Your task to perform on an android device: stop showing notifications on the lock screen Image 0: 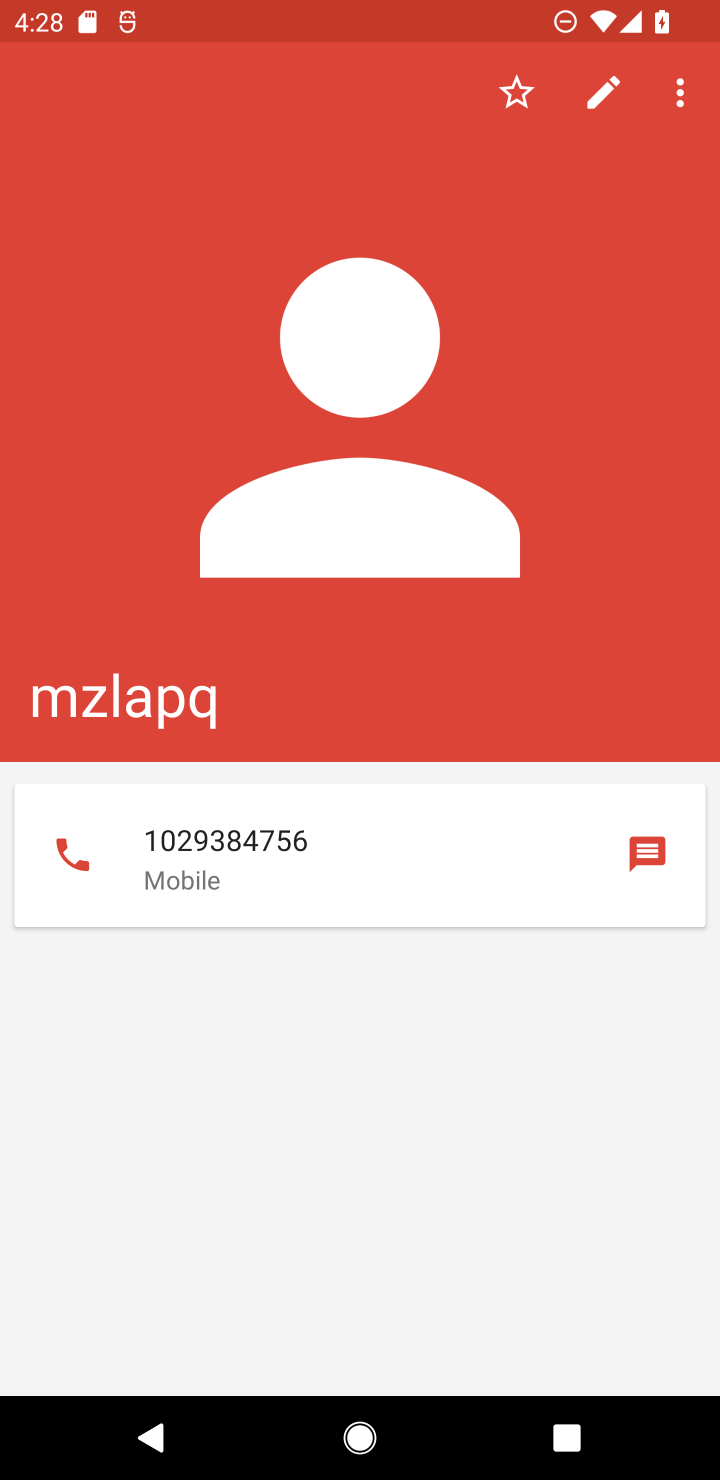
Step 0: press home button
Your task to perform on an android device: stop showing notifications on the lock screen Image 1: 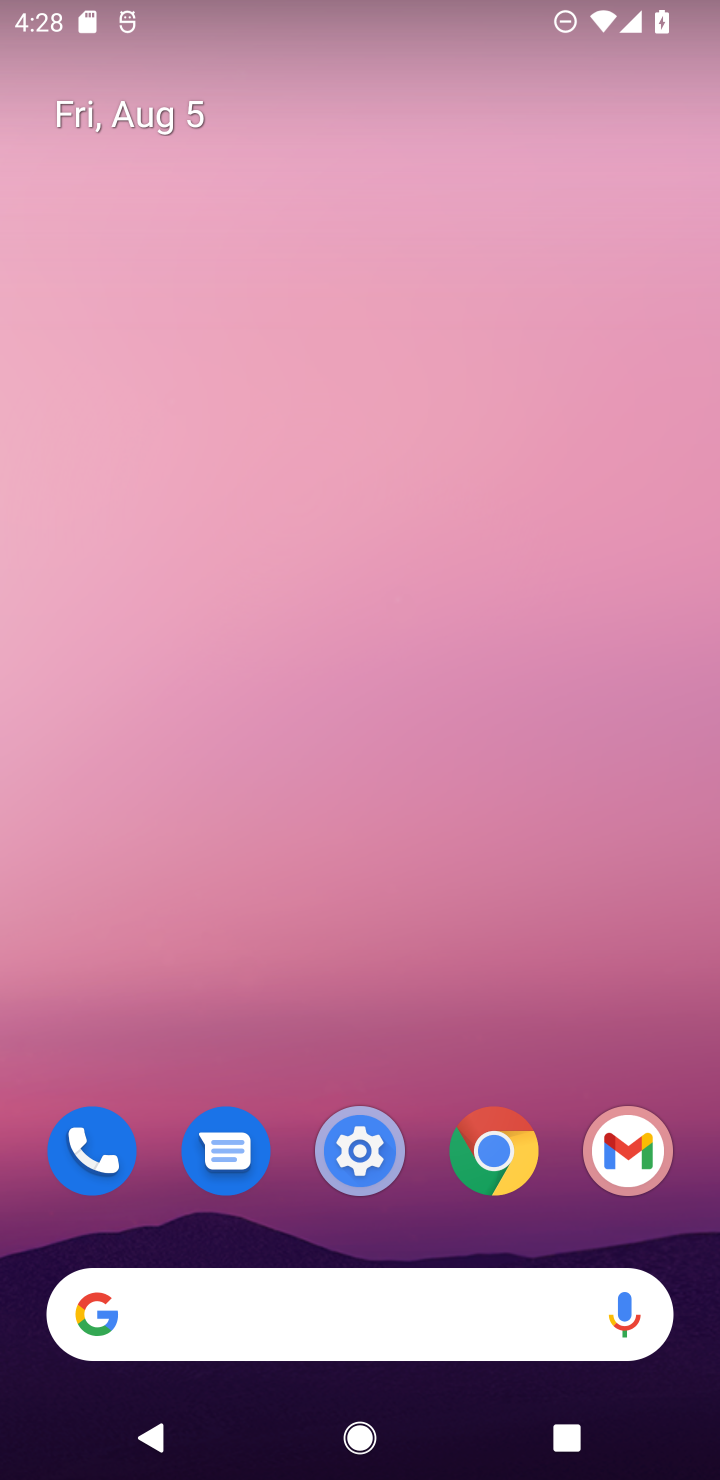
Step 1: click (381, 1162)
Your task to perform on an android device: stop showing notifications on the lock screen Image 2: 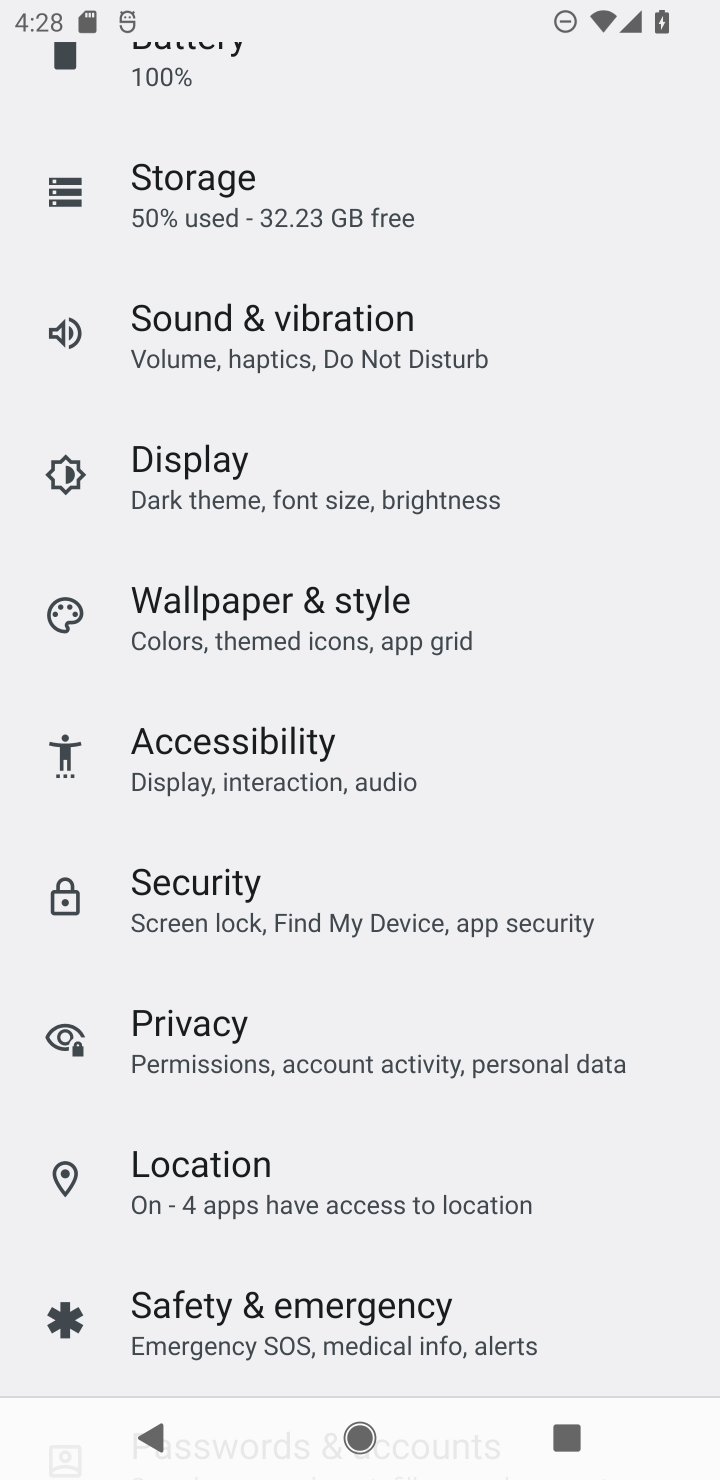
Step 2: drag from (398, 148) to (327, 1315)
Your task to perform on an android device: stop showing notifications on the lock screen Image 3: 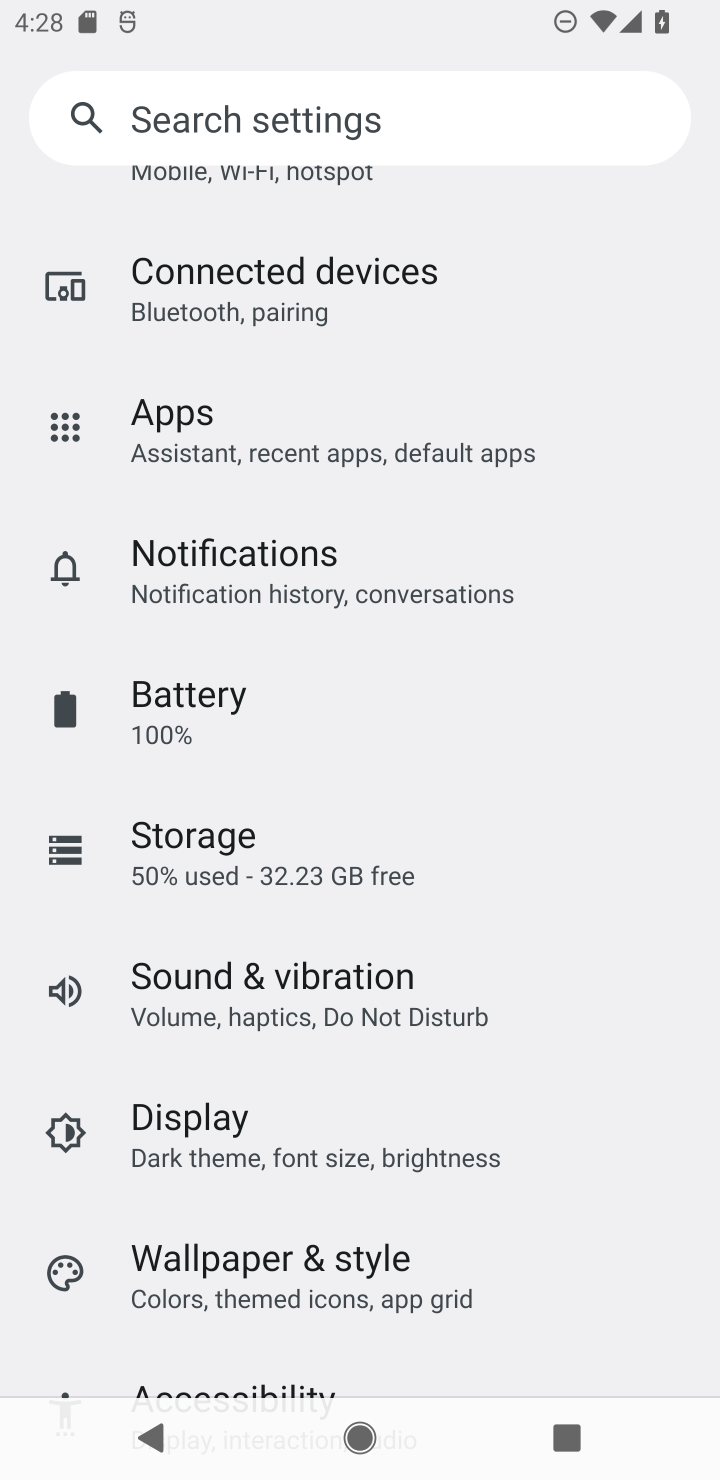
Step 3: click (349, 538)
Your task to perform on an android device: stop showing notifications on the lock screen Image 4: 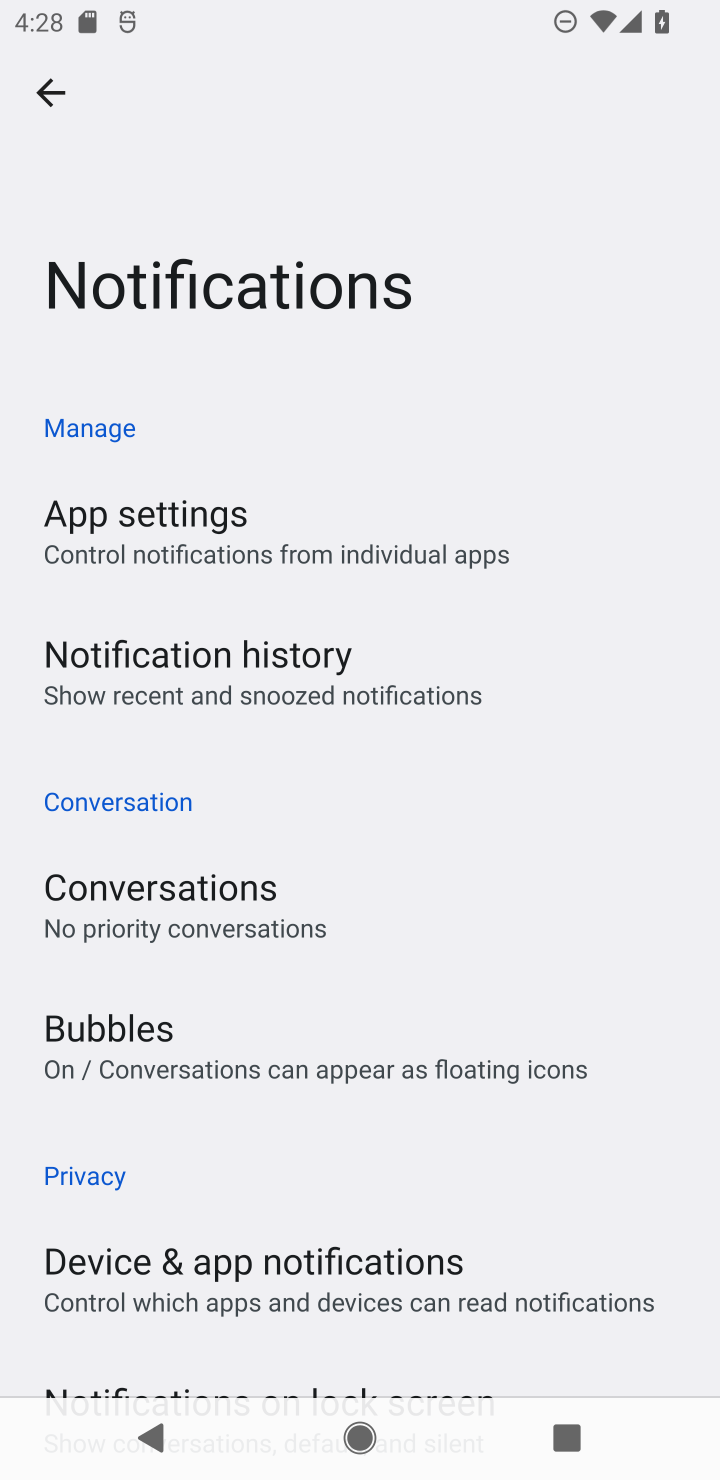
Step 4: drag from (318, 1231) to (271, 436)
Your task to perform on an android device: stop showing notifications on the lock screen Image 5: 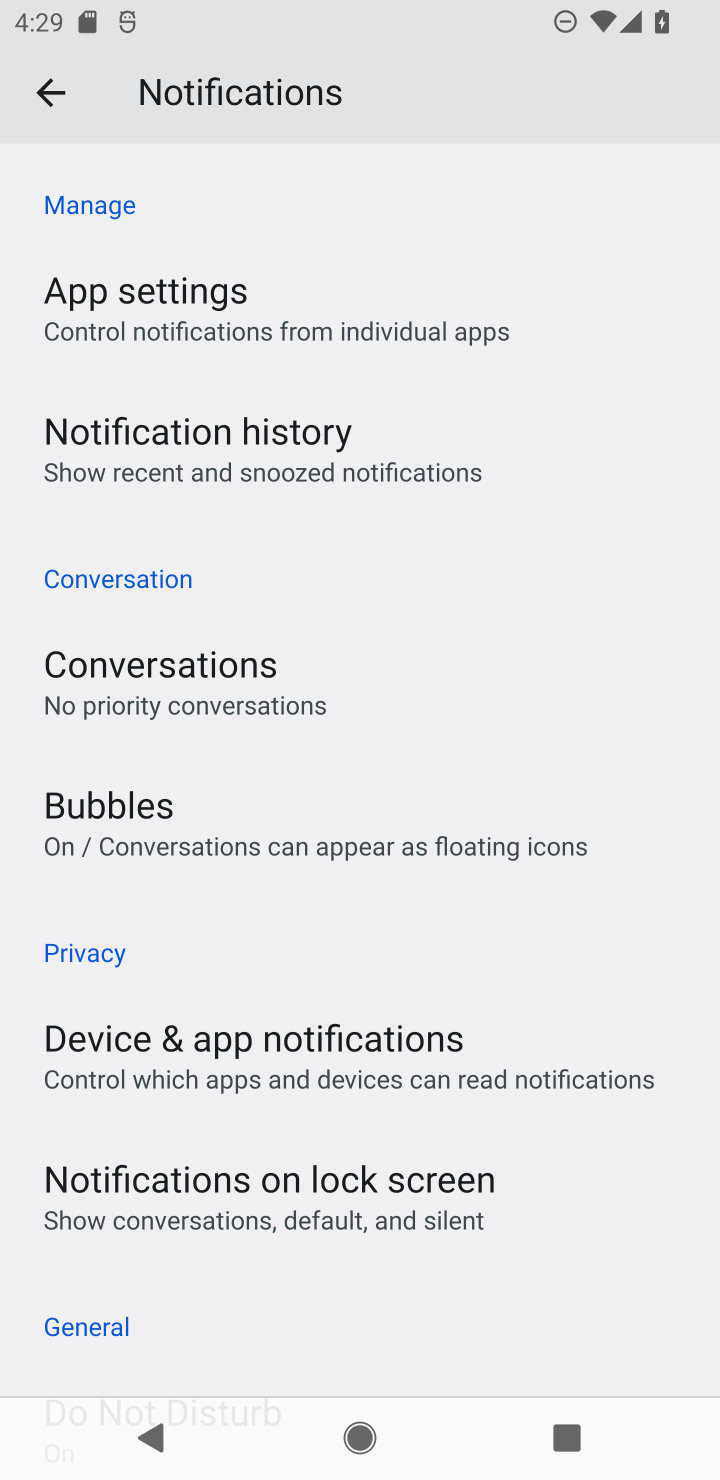
Step 5: click (266, 1169)
Your task to perform on an android device: stop showing notifications on the lock screen Image 6: 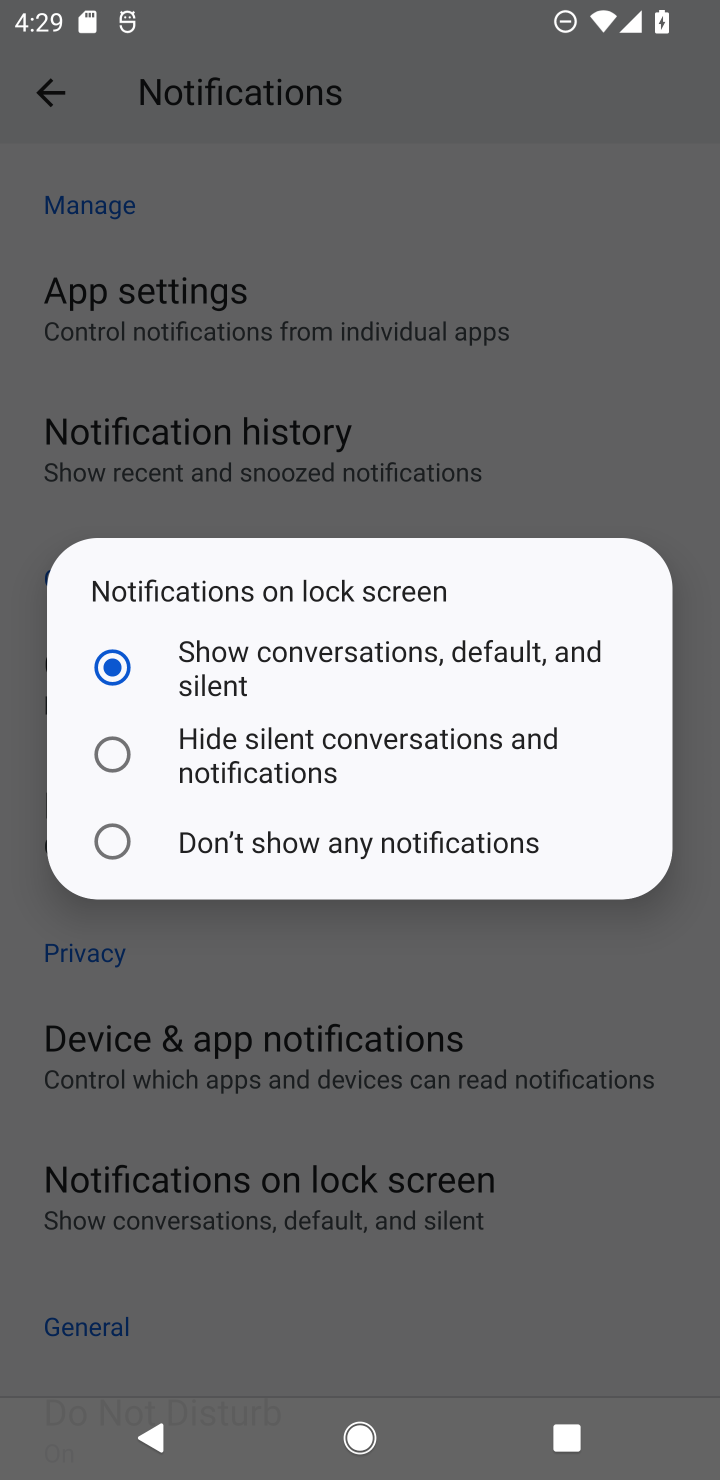
Step 6: click (237, 849)
Your task to perform on an android device: stop showing notifications on the lock screen Image 7: 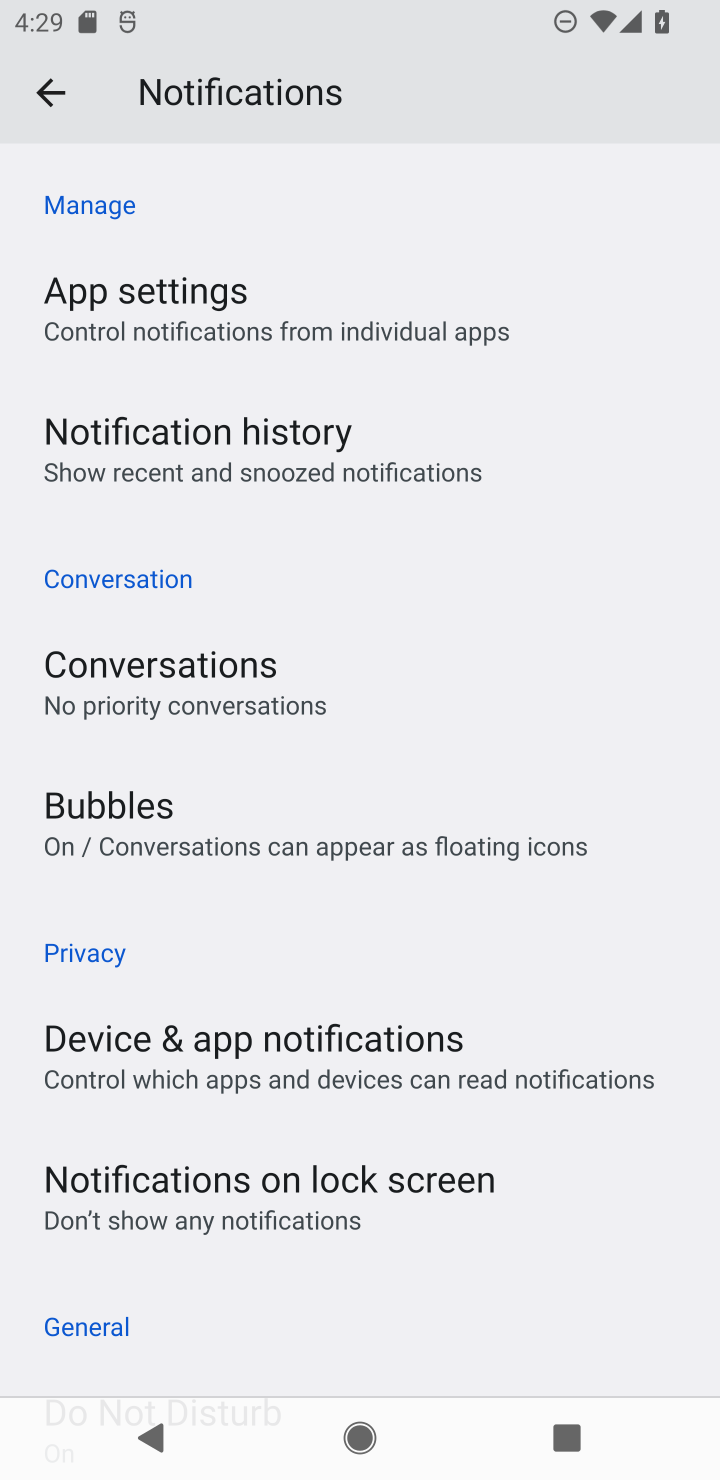
Step 7: task complete